Your task to perform on an android device: Go to location settings Image 0: 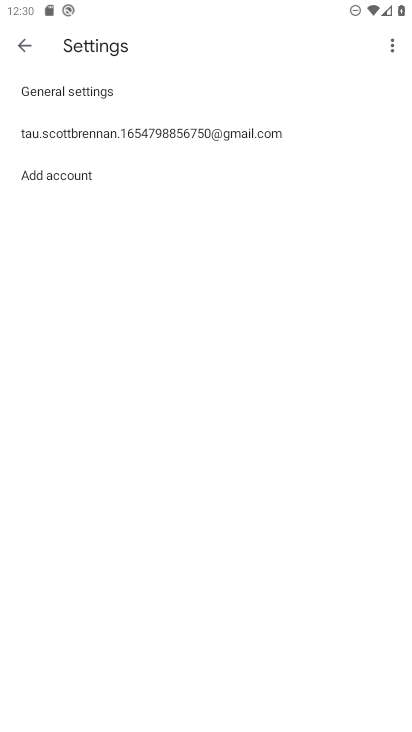
Step 0: press home button
Your task to perform on an android device: Go to location settings Image 1: 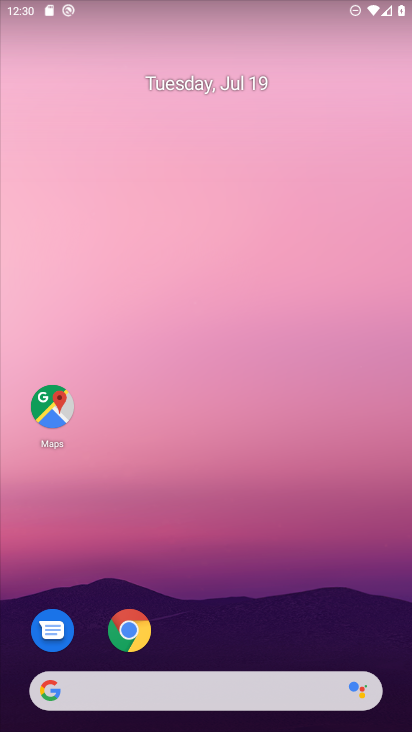
Step 1: drag from (168, 697) to (285, 106)
Your task to perform on an android device: Go to location settings Image 2: 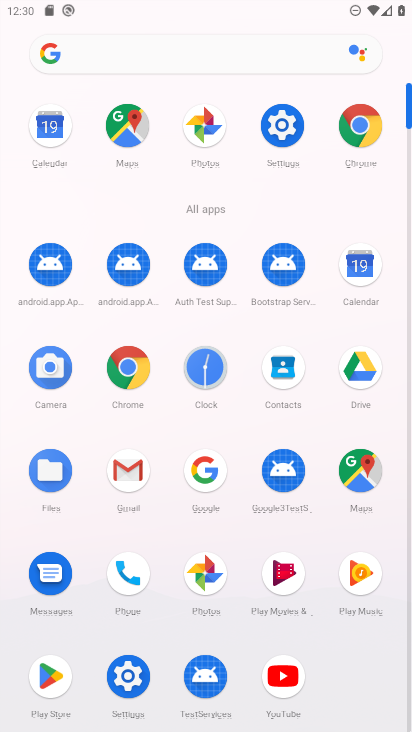
Step 2: click (278, 123)
Your task to perform on an android device: Go to location settings Image 3: 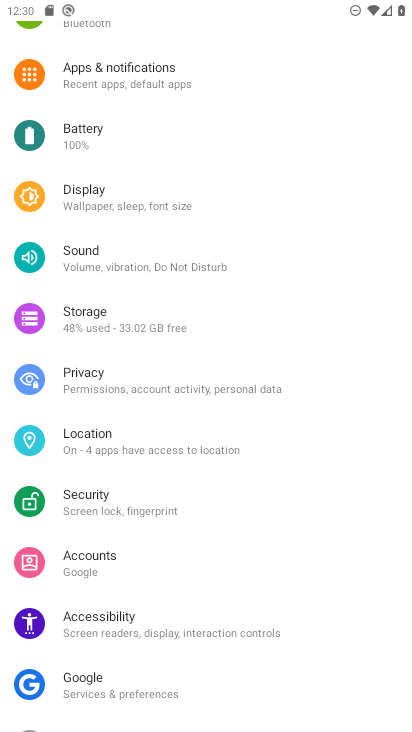
Step 3: click (105, 440)
Your task to perform on an android device: Go to location settings Image 4: 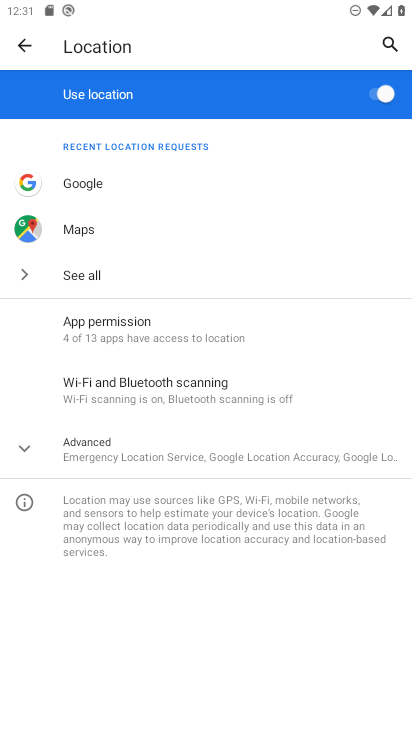
Step 4: task complete